Your task to perform on an android device: Go to sound settings Image 0: 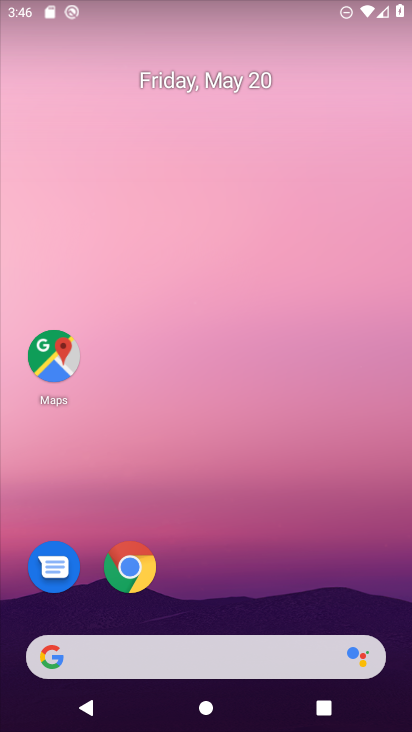
Step 0: drag from (220, 725) to (225, 113)
Your task to perform on an android device: Go to sound settings Image 1: 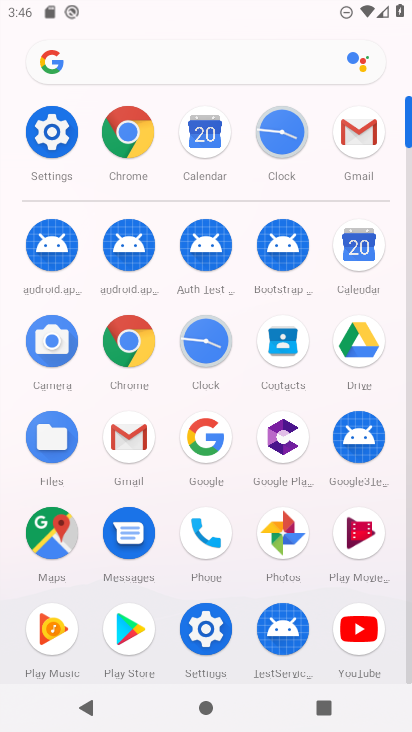
Step 1: click (49, 130)
Your task to perform on an android device: Go to sound settings Image 2: 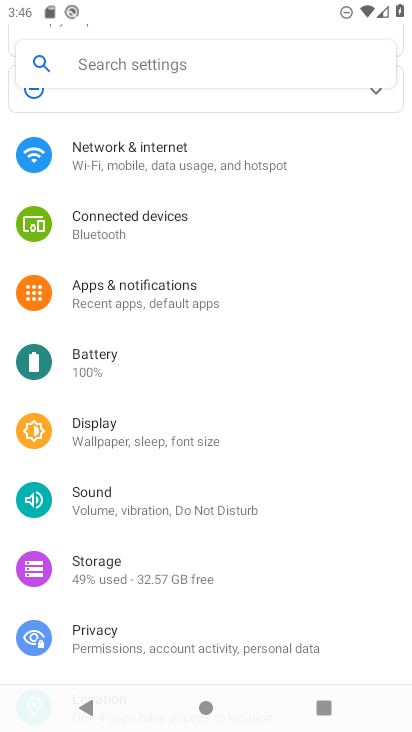
Step 2: click (99, 507)
Your task to perform on an android device: Go to sound settings Image 3: 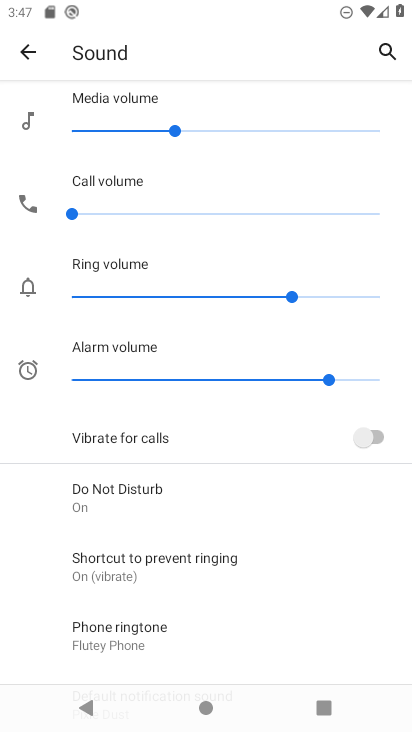
Step 3: task complete